Your task to perform on an android device: open the mobile data screen to see how much data has been used Image 0: 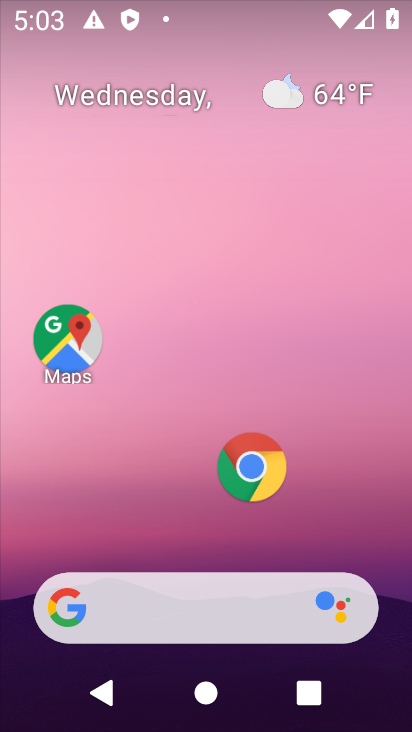
Step 0: drag from (119, 508) to (334, 72)
Your task to perform on an android device: open the mobile data screen to see how much data has been used Image 1: 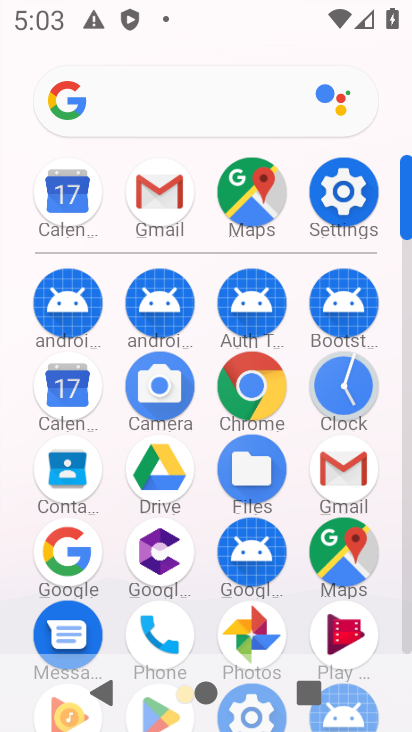
Step 1: task complete